Your task to perform on an android device: What's the news in Vietnam? Image 0: 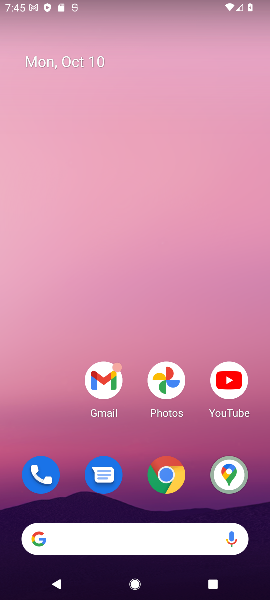
Step 0: click (153, 471)
Your task to perform on an android device: What's the news in Vietnam? Image 1: 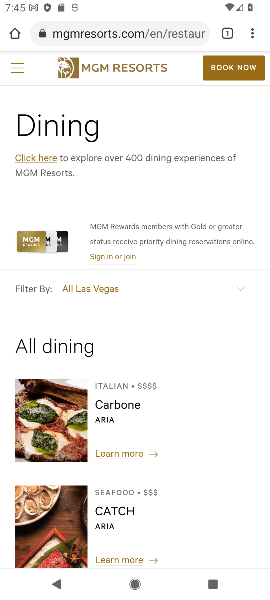
Step 1: click (93, 28)
Your task to perform on an android device: What's the news in Vietnam? Image 2: 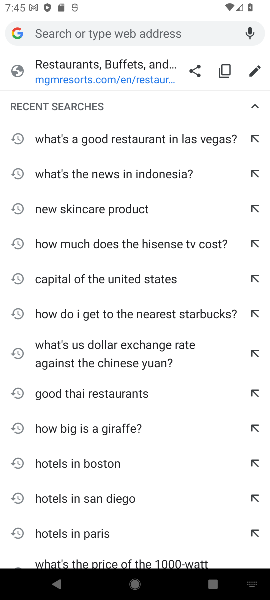
Step 2: type " the news in Vietnam?"
Your task to perform on an android device: What's the news in Vietnam? Image 3: 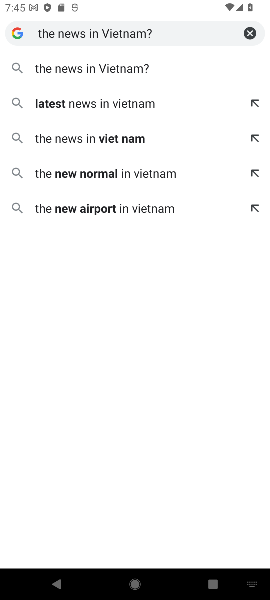
Step 3: click (123, 67)
Your task to perform on an android device: What's the news in Vietnam? Image 4: 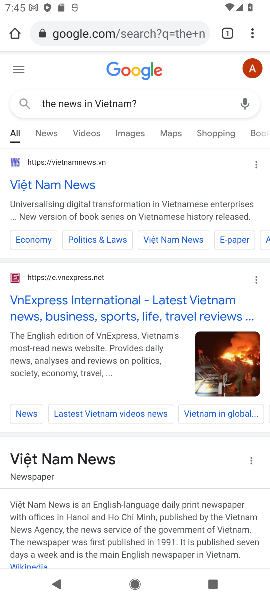
Step 4: click (47, 184)
Your task to perform on an android device: What's the news in Vietnam? Image 5: 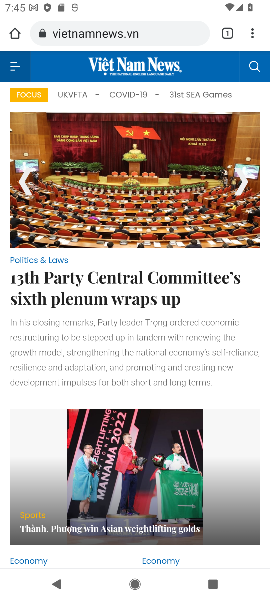
Step 5: task complete